Your task to perform on an android device: snooze an email in the gmail app Image 0: 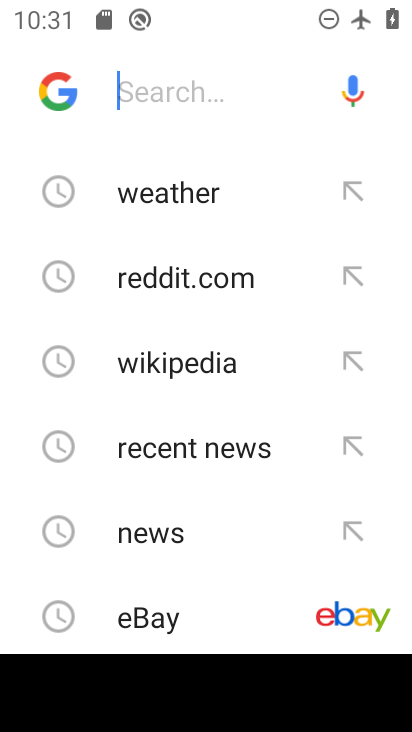
Step 0: press home button
Your task to perform on an android device: snooze an email in the gmail app Image 1: 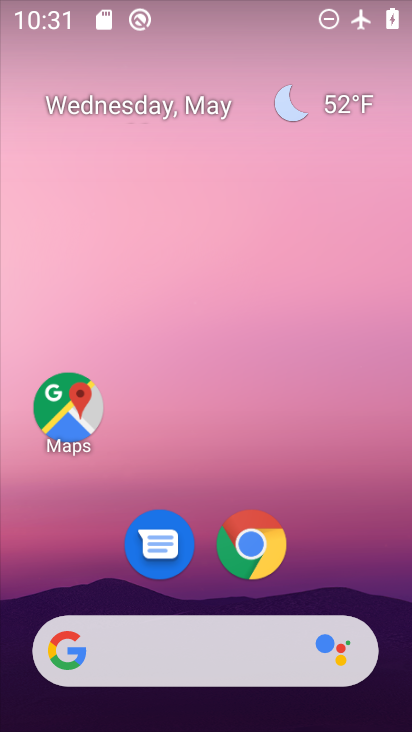
Step 1: drag from (210, 582) to (347, 33)
Your task to perform on an android device: snooze an email in the gmail app Image 2: 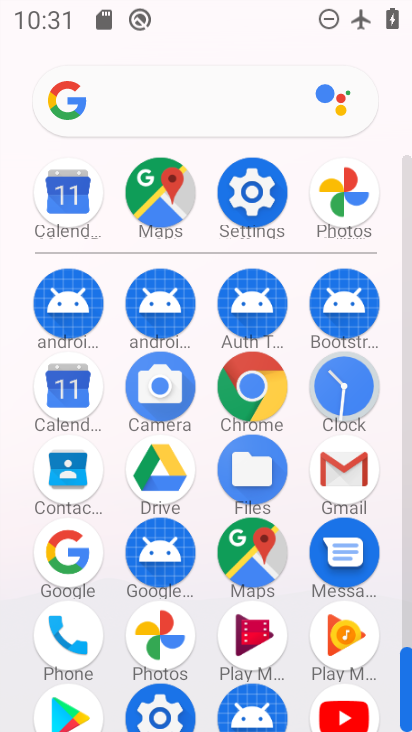
Step 2: click (336, 469)
Your task to perform on an android device: snooze an email in the gmail app Image 3: 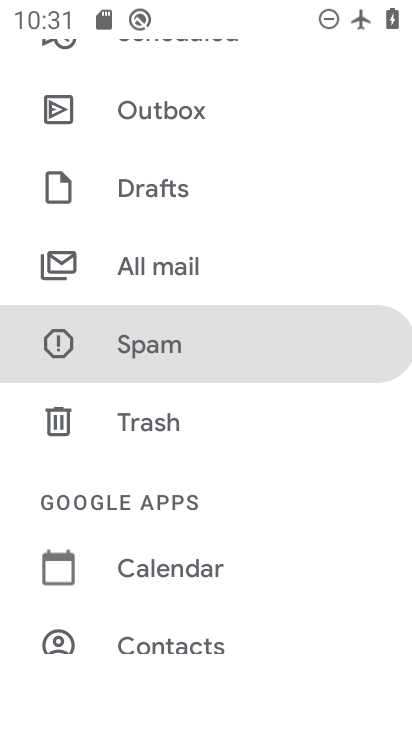
Step 3: drag from (173, 152) to (194, 586)
Your task to perform on an android device: snooze an email in the gmail app Image 4: 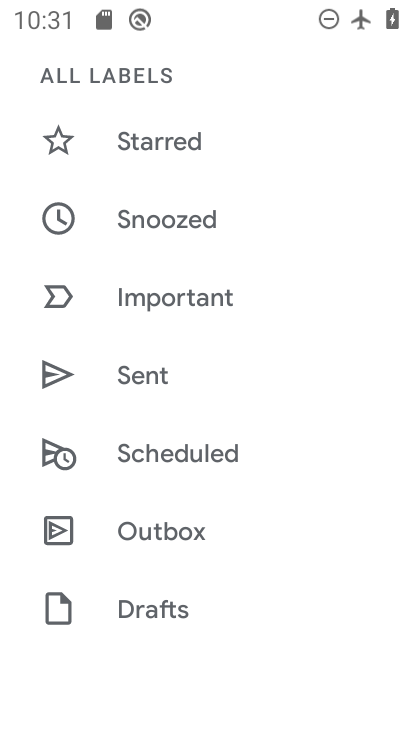
Step 4: drag from (209, 526) to (256, 277)
Your task to perform on an android device: snooze an email in the gmail app Image 5: 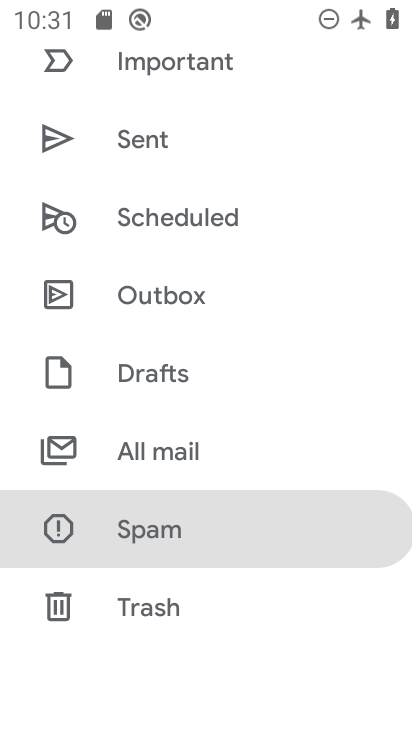
Step 5: click (167, 455)
Your task to perform on an android device: snooze an email in the gmail app Image 6: 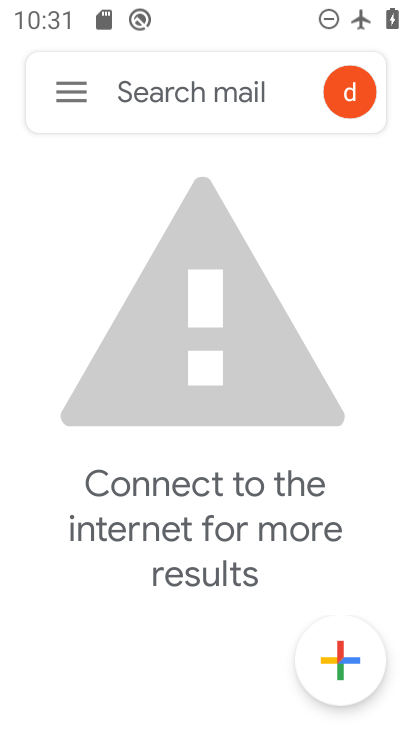
Step 6: drag from (214, 20) to (200, 361)
Your task to perform on an android device: snooze an email in the gmail app Image 7: 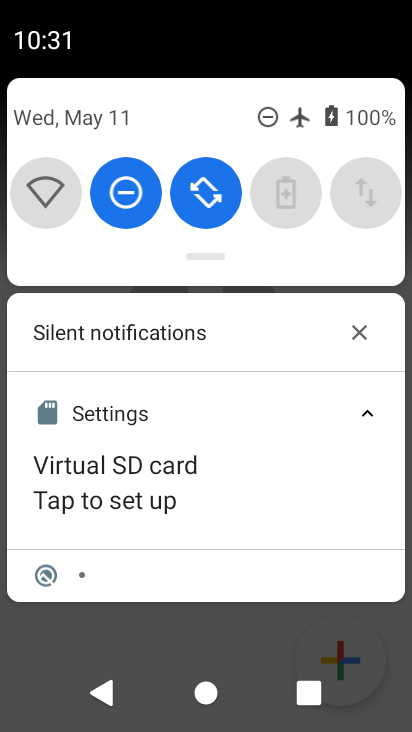
Step 7: drag from (220, 99) to (186, 670)
Your task to perform on an android device: snooze an email in the gmail app Image 8: 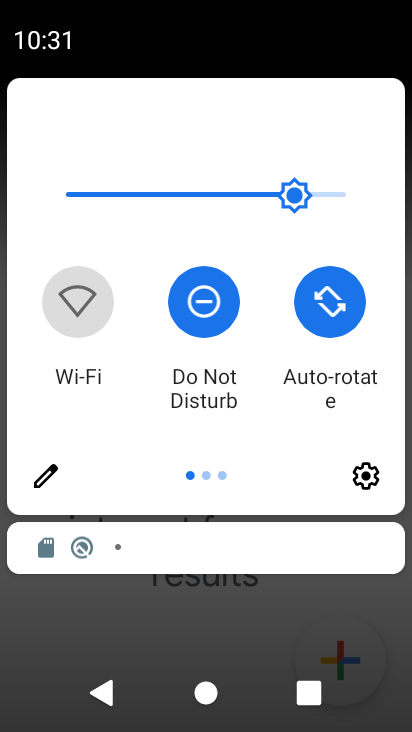
Step 8: drag from (393, 402) to (8, 403)
Your task to perform on an android device: snooze an email in the gmail app Image 9: 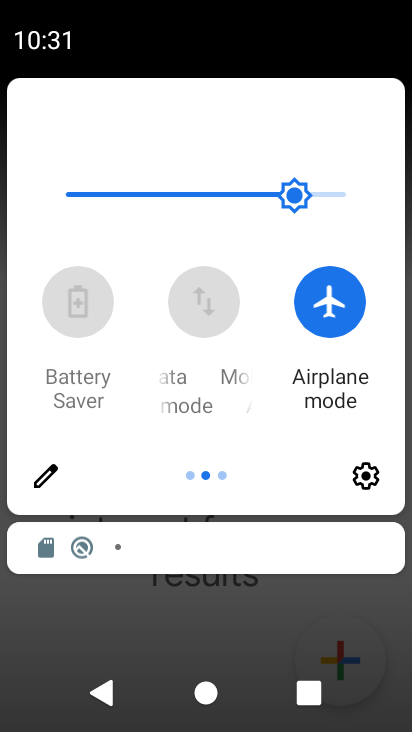
Step 9: click (306, 324)
Your task to perform on an android device: snooze an email in the gmail app Image 10: 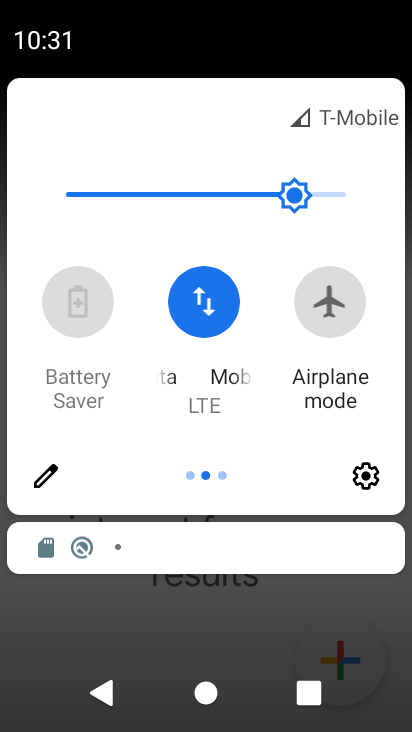
Step 10: click (296, 613)
Your task to perform on an android device: snooze an email in the gmail app Image 11: 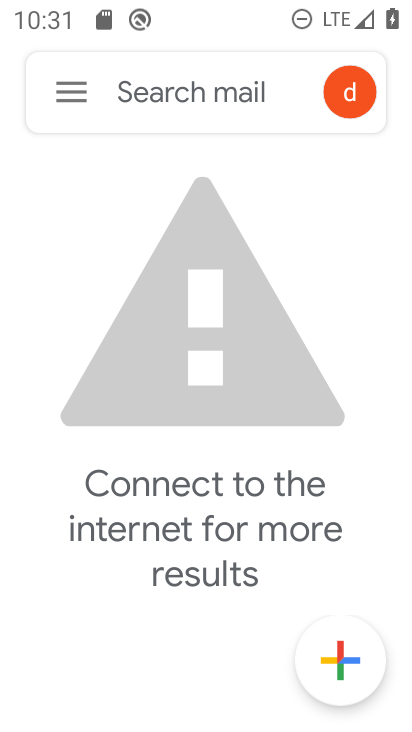
Step 11: task complete